Your task to perform on an android device: Go to Wikipedia Image 0: 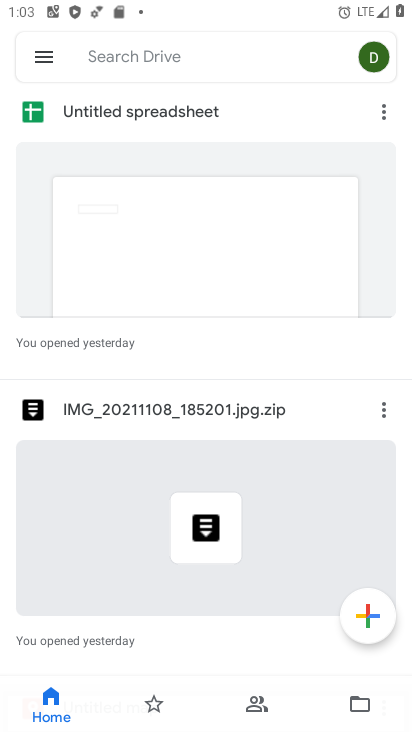
Step 0: press back button
Your task to perform on an android device: Go to Wikipedia Image 1: 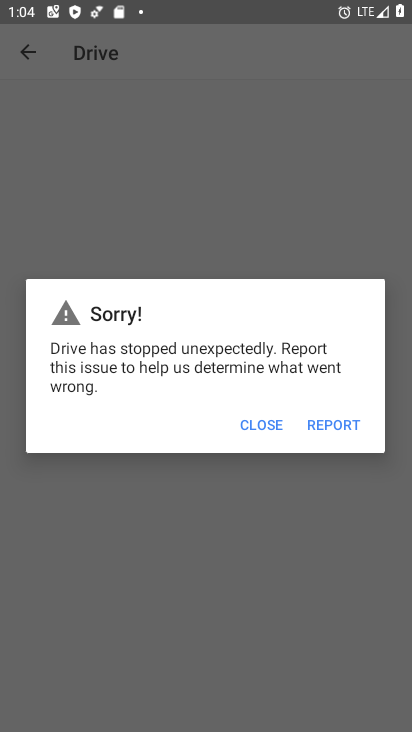
Step 1: press home button
Your task to perform on an android device: Go to Wikipedia Image 2: 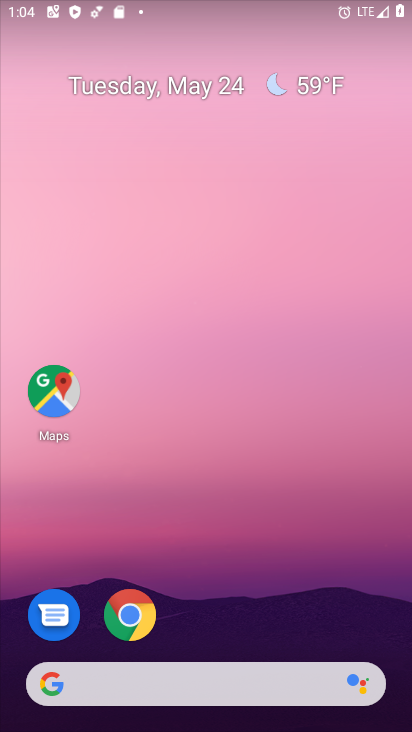
Step 2: drag from (271, 601) to (232, 30)
Your task to perform on an android device: Go to Wikipedia Image 3: 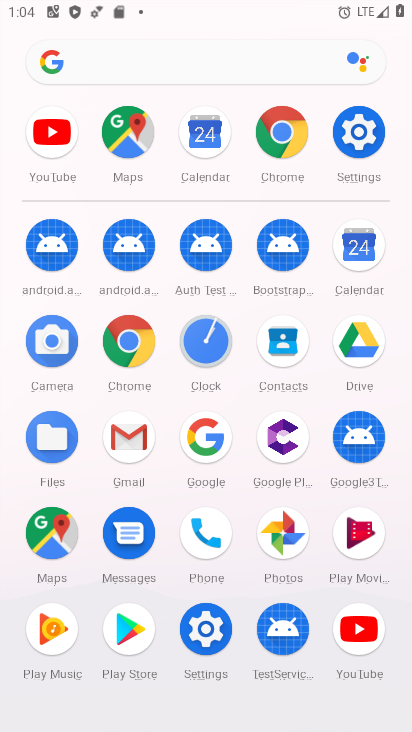
Step 3: click (124, 383)
Your task to perform on an android device: Go to Wikipedia Image 4: 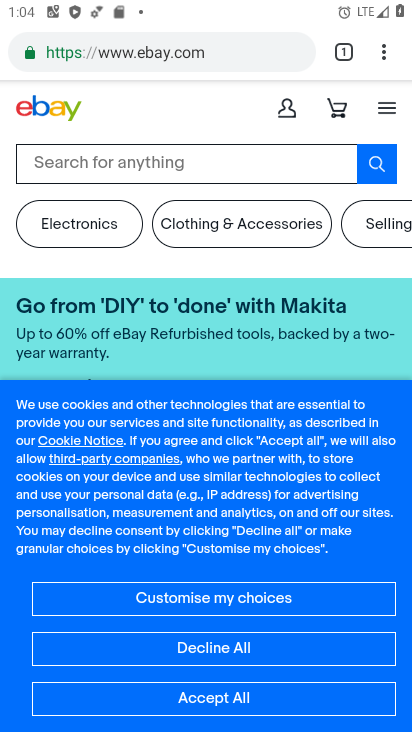
Step 4: click (163, 57)
Your task to perform on an android device: Go to Wikipedia Image 5: 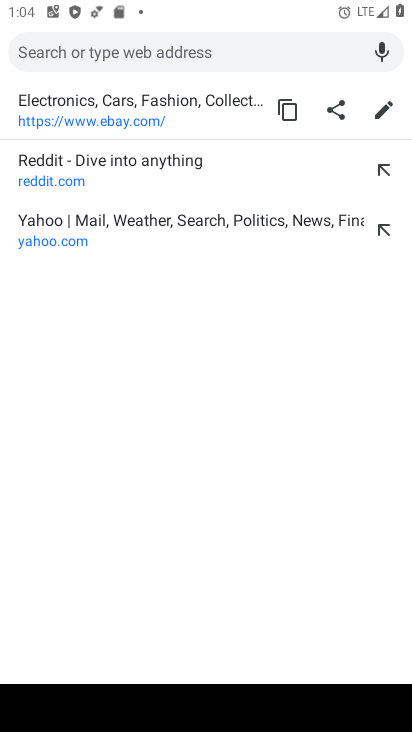
Step 5: type "Wikipedia"
Your task to perform on an android device: Go to Wikipedia Image 6: 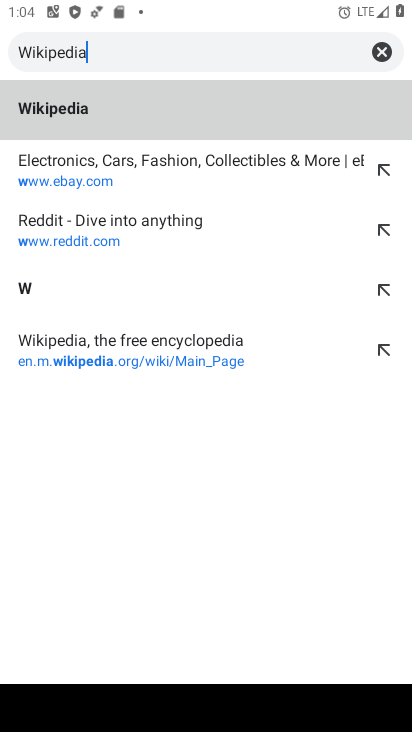
Step 6: type ""
Your task to perform on an android device: Go to Wikipedia Image 7: 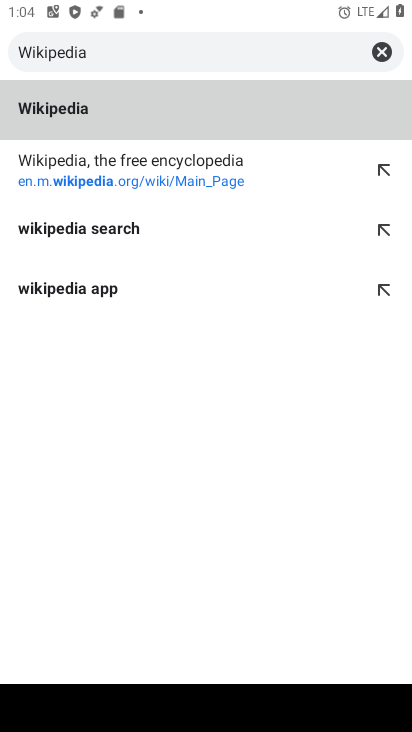
Step 7: click (105, 164)
Your task to perform on an android device: Go to Wikipedia Image 8: 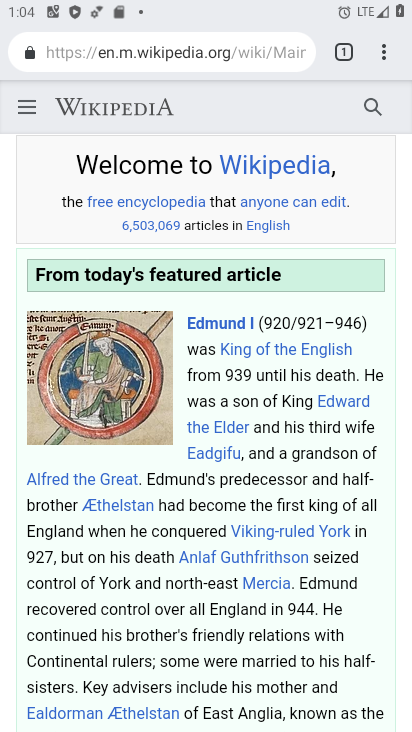
Step 8: task complete